Your task to perform on an android device: open app "Venmo" Image 0: 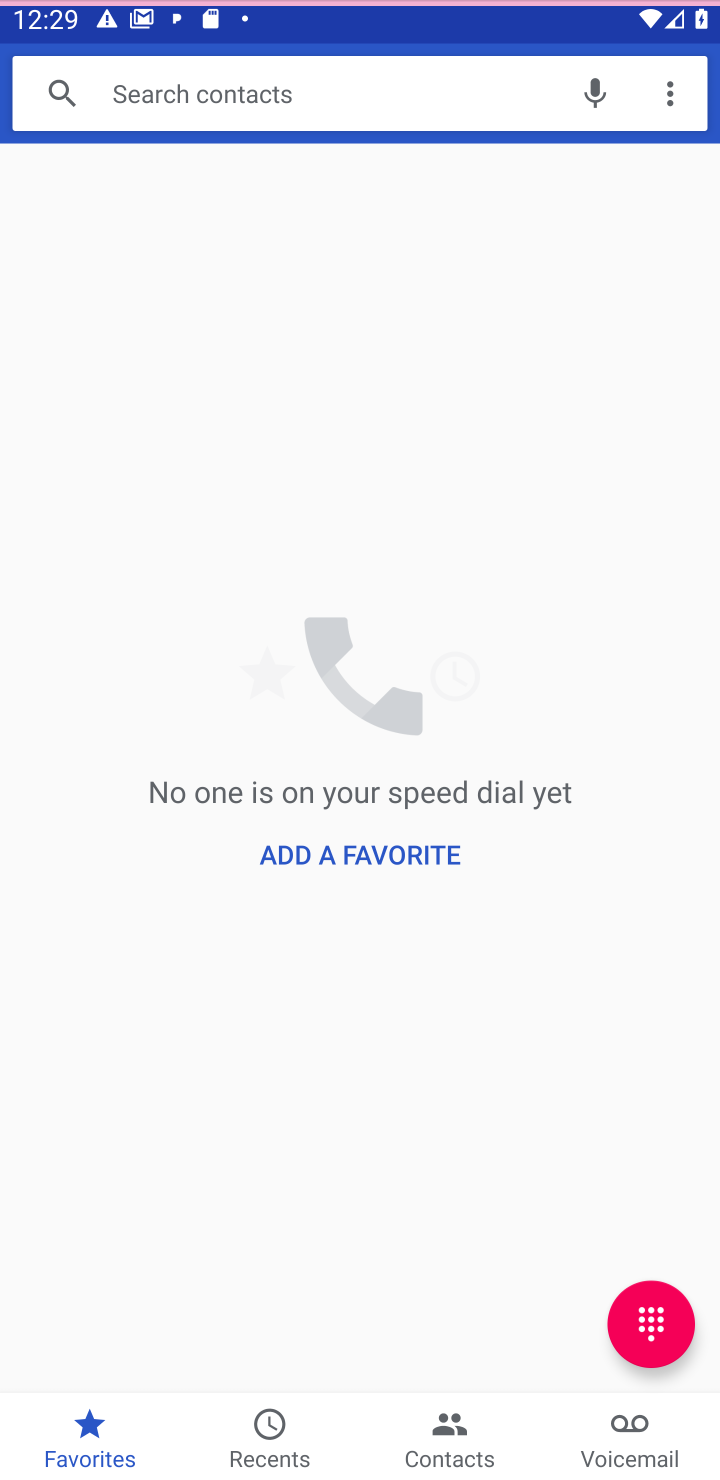
Step 0: press home button
Your task to perform on an android device: open app "Venmo" Image 1: 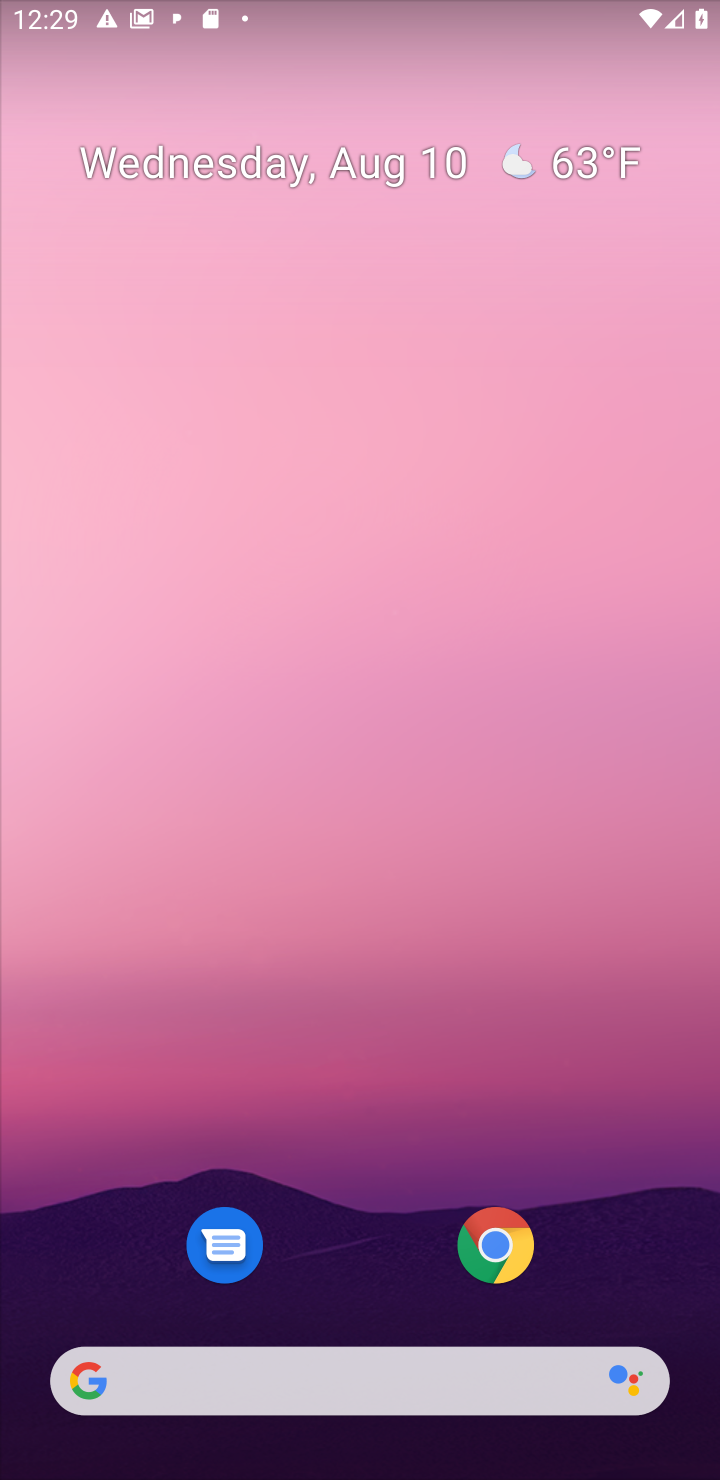
Step 1: drag from (415, 1327) to (413, 540)
Your task to perform on an android device: open app "Venmo" Image 2: 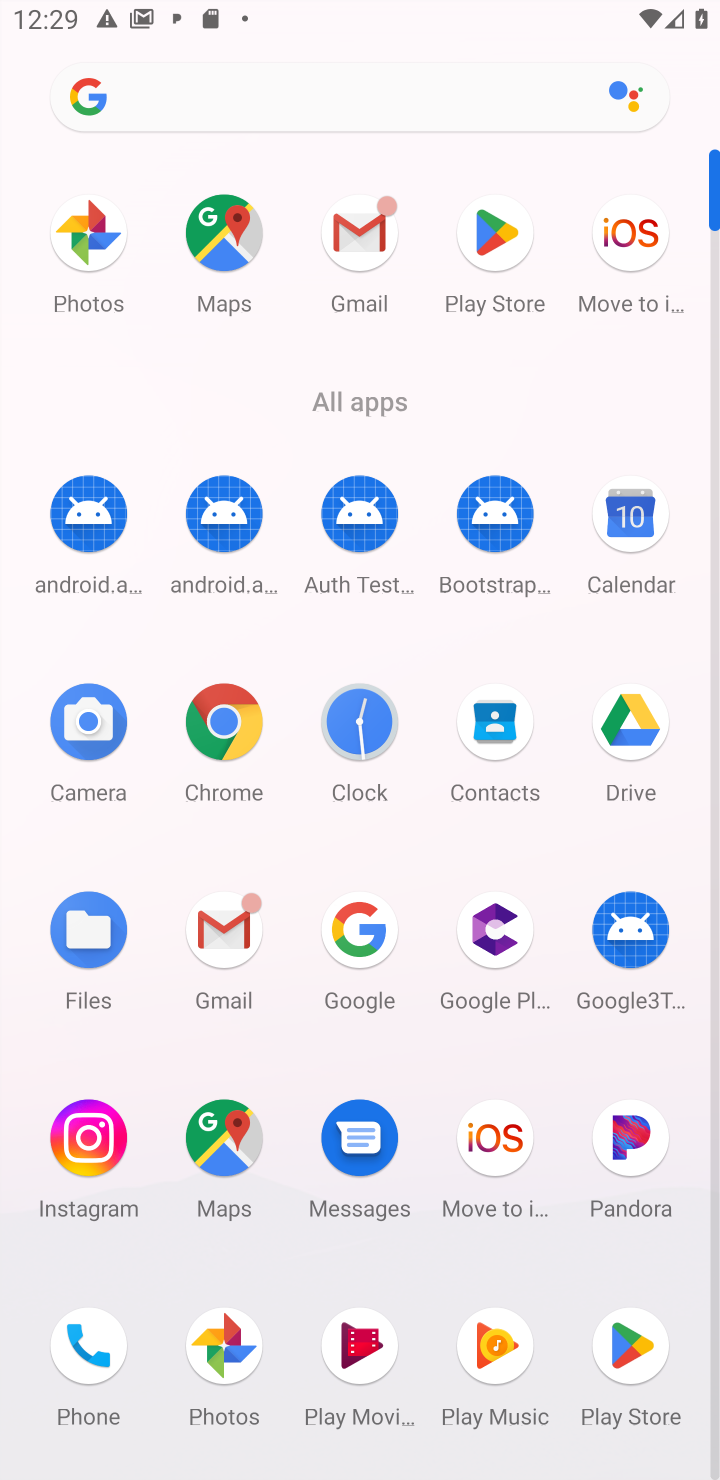
Step 2: click (503, 231)
Your task to perform on an android device: open app "Venmo" Image 3: 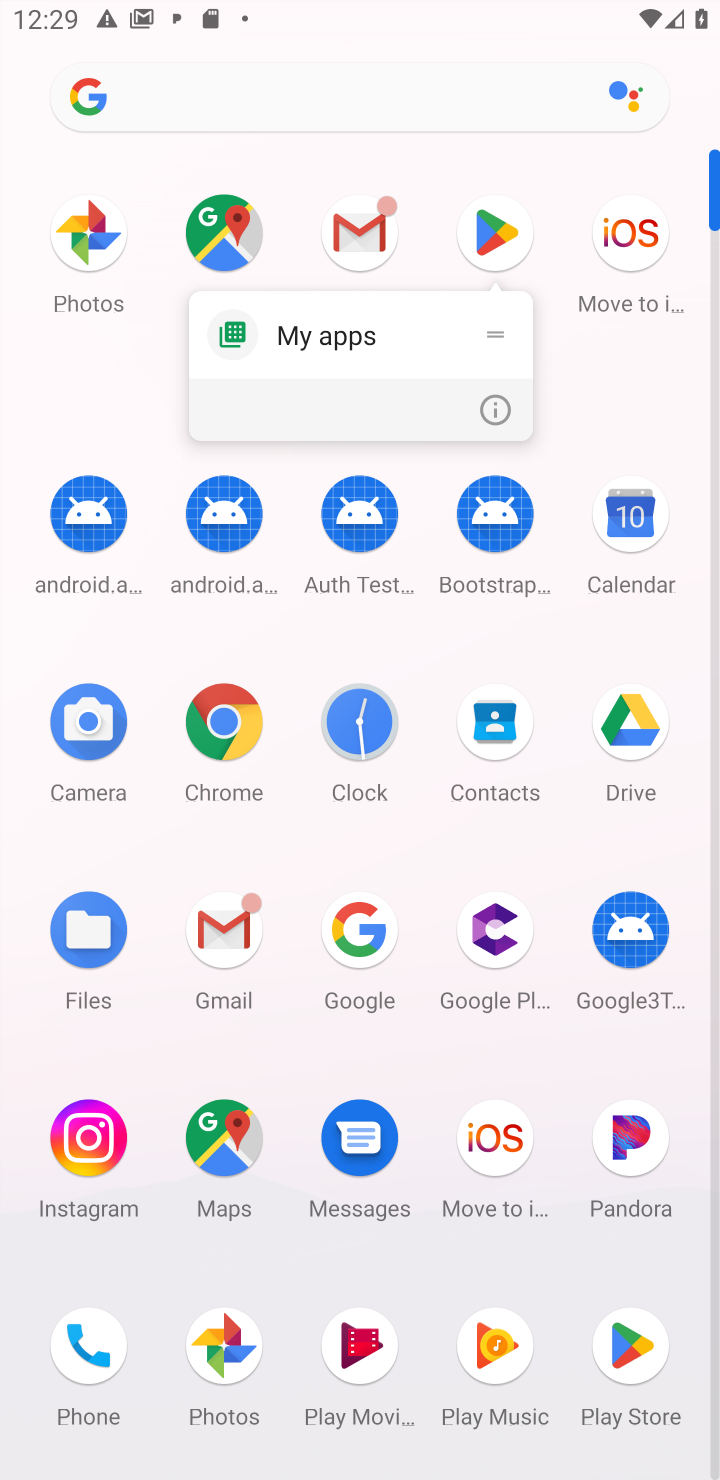
Step 3: click (486, 235)
Your task to perform on an android device: open app "Venmo" Image 4: 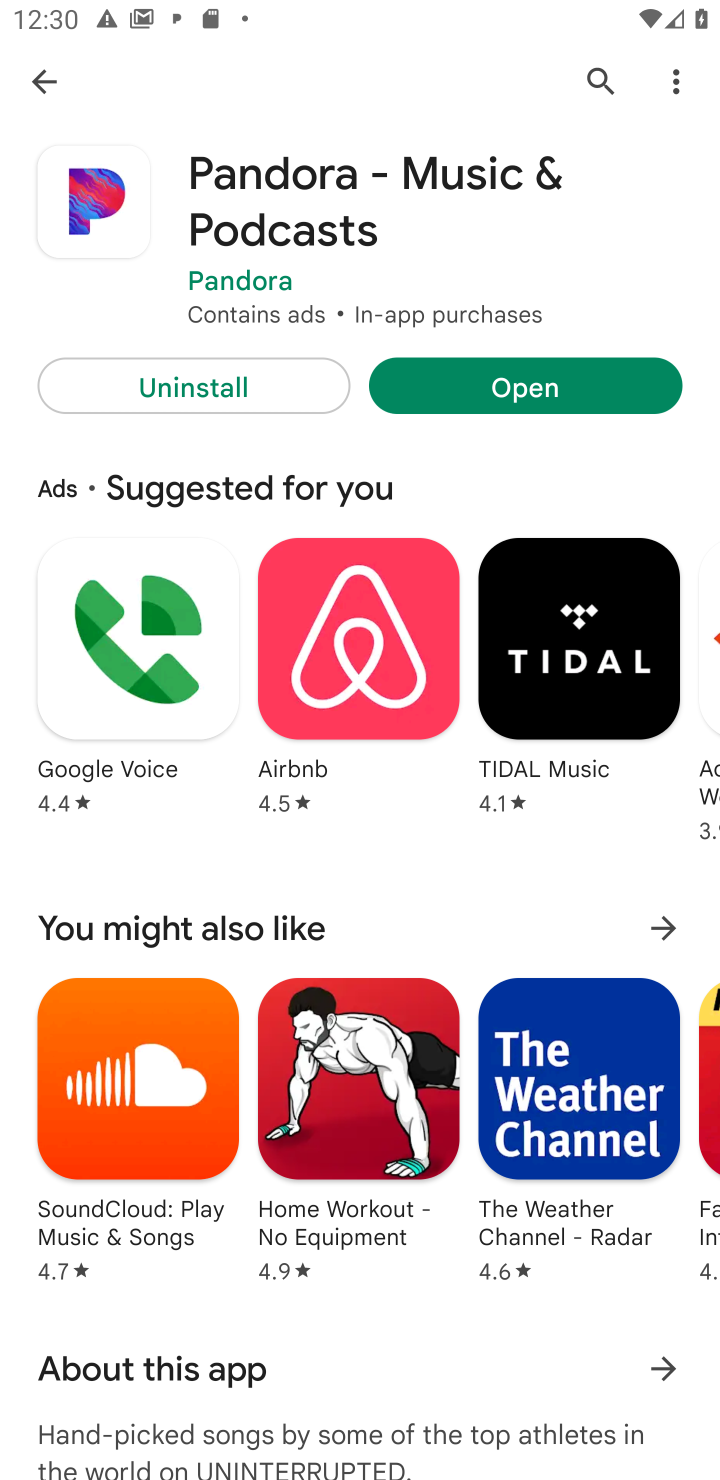
Step 4: click (602, 63)
Your task to perform on an android device: open app "Venmo" Image 5: 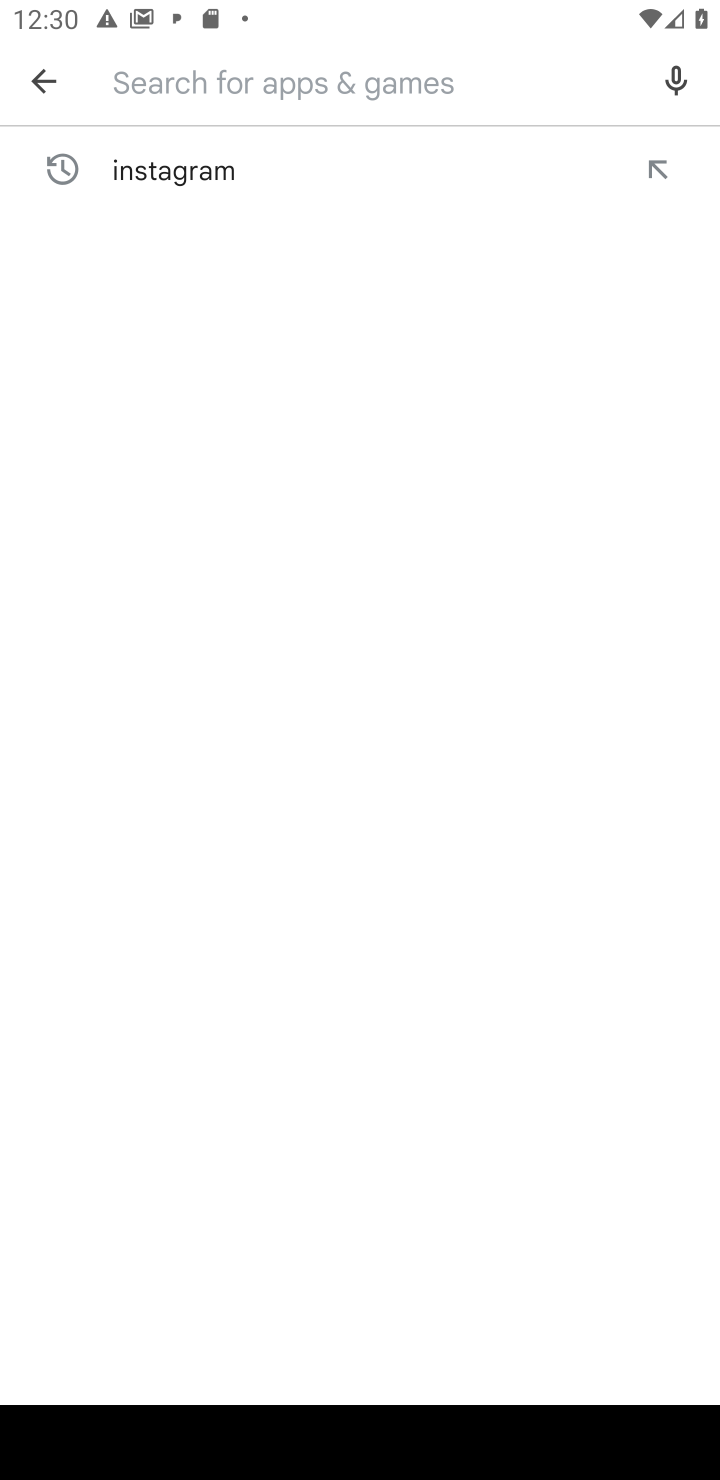
Step 5: type "Venmo"
Your task to perform on an android device: open app "Venmo" Image 6: 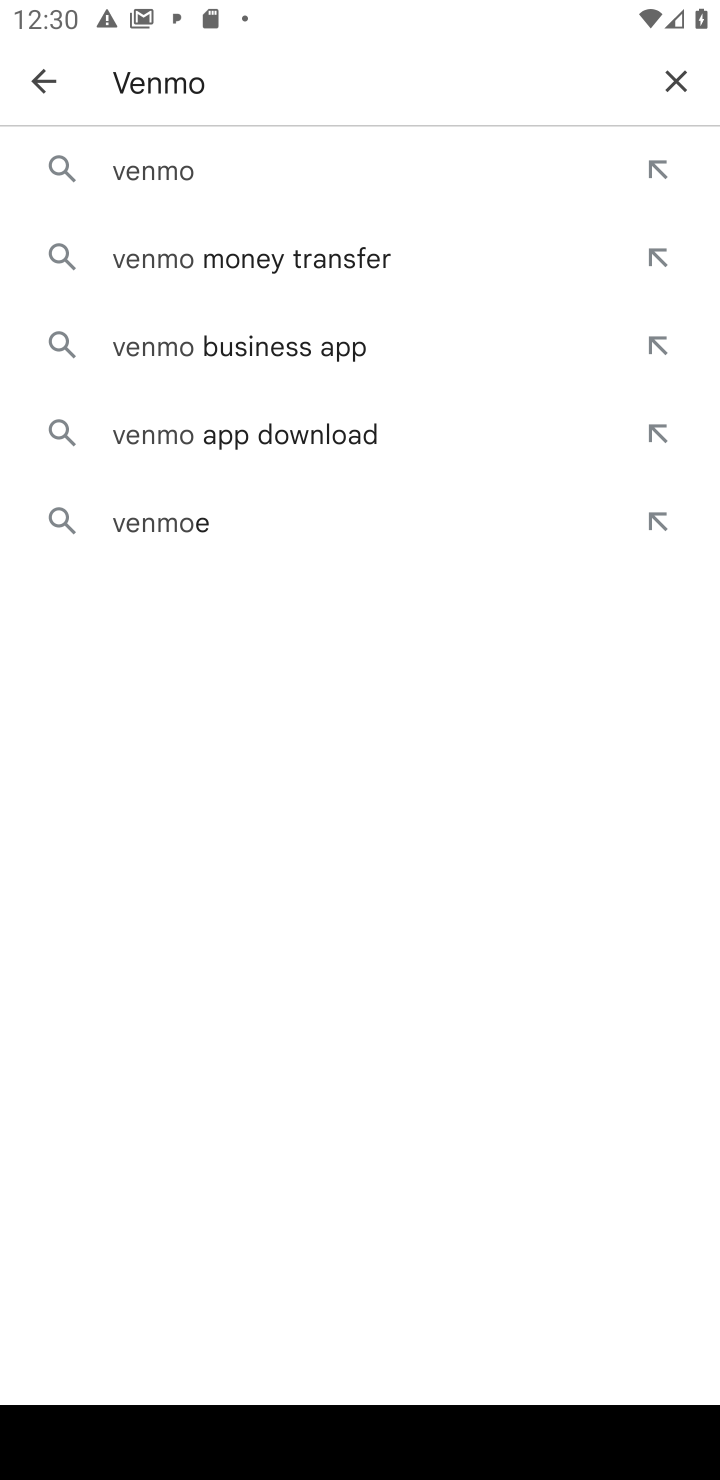
Step 6: click (210, 180)
Your task to perform on an android device: open app "Venmo" Image 7: 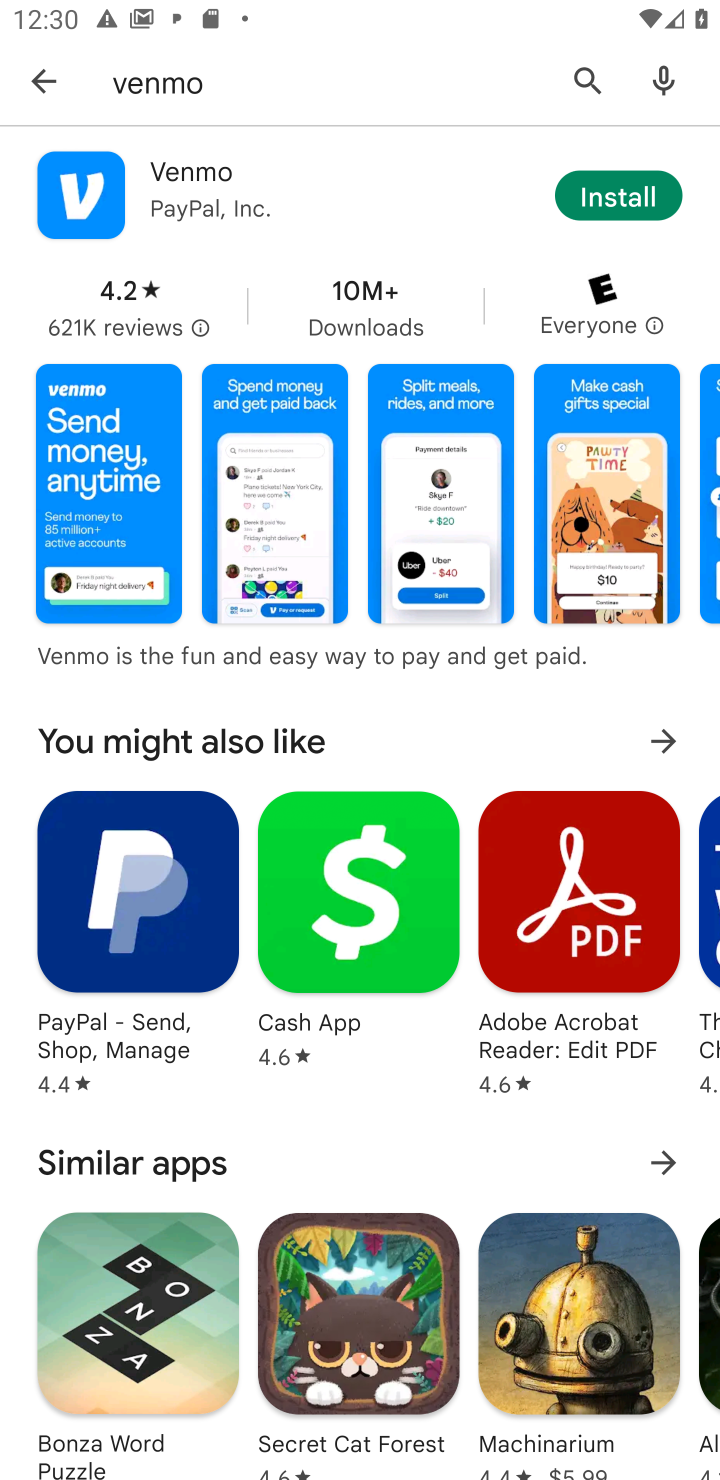
Step 7: click (595, 197)
Your task to perform on an android device: open app "Venmo" Image 8: 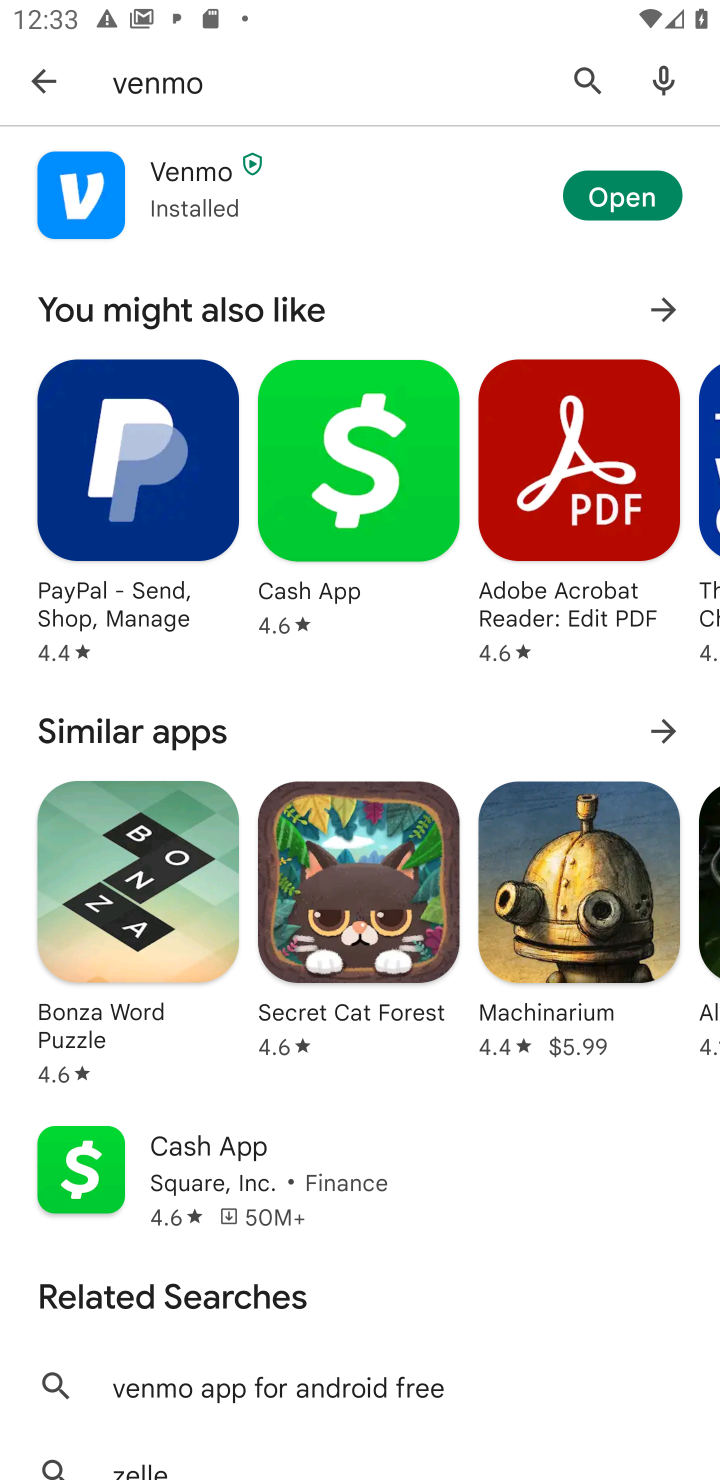
Step 8: click (605, 201)
Your task to perform on an android device: open app "Venmo" Image 9: 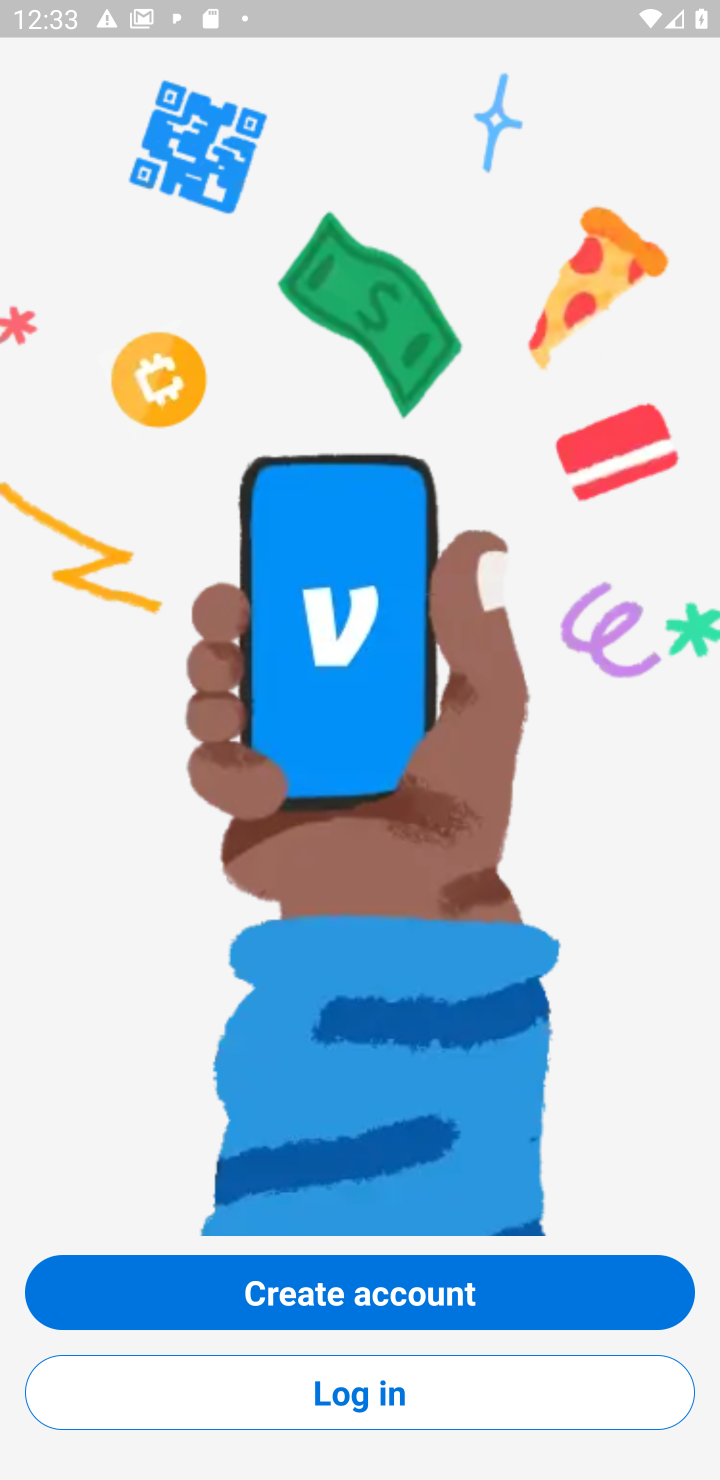
Step 9: task complete